Your task to perform on an android device: Open Google Chrome and open the bookmarks view Image 0: 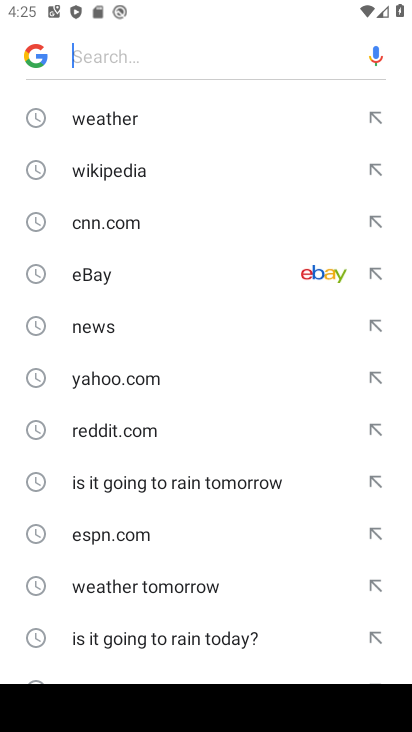
Step 0: press home button
Your task to perform on an android device: Open Google Chrome and open the bookmarks view Image 1: 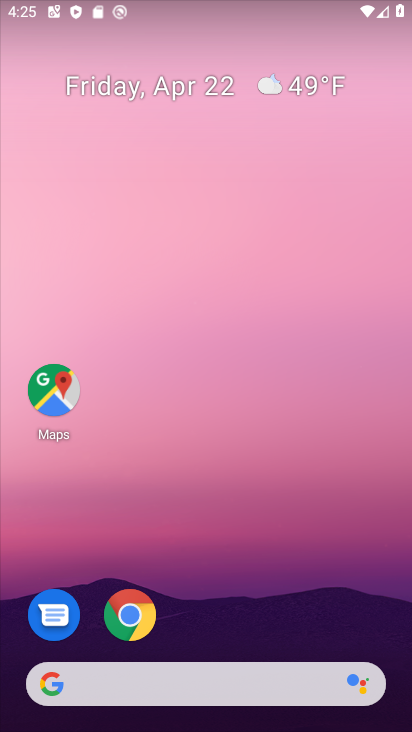
Step 1: click (128, 619)
Your task to perform on an android device: Open Google Chrome and open the bookmarks view Image 2: 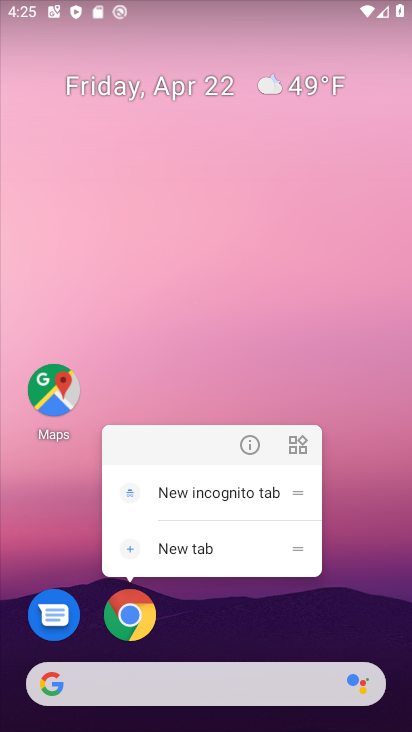
Step 2: click (140, 621)
Your task to perform on an android device: Open Google Chrome and open the bookmarks view Image 3: 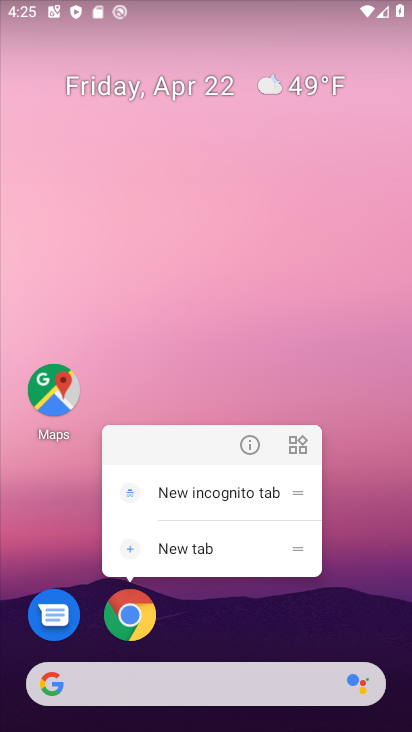
Step 3: click (140, 621)
Your task to perform on an android device: Open Google Chrome and open the bookmarks view Image 4: 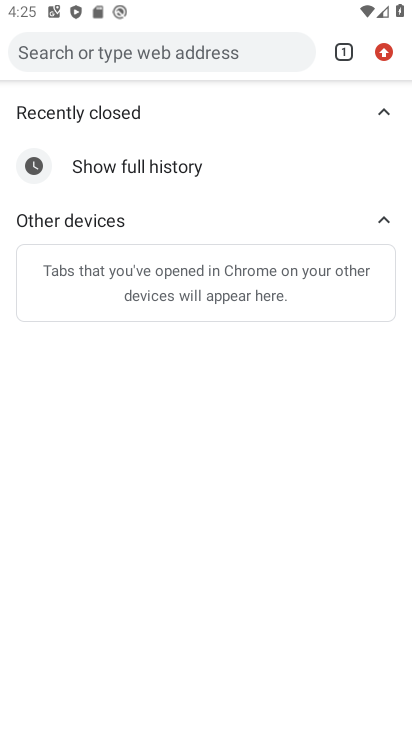
Step 4: task complete